Your task to perform on an android device: Open Google Maps and go to "Timeline" Image 0: 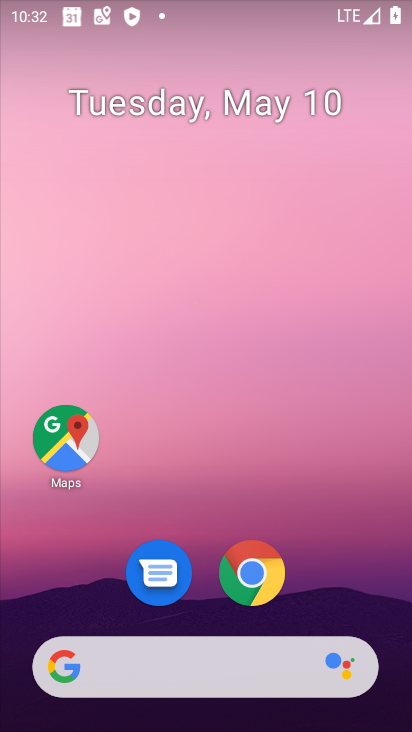
Step 0: click (63, 436)
Your task to perform on an android device: Open Google Maps and go to "Timeline" Image 1: 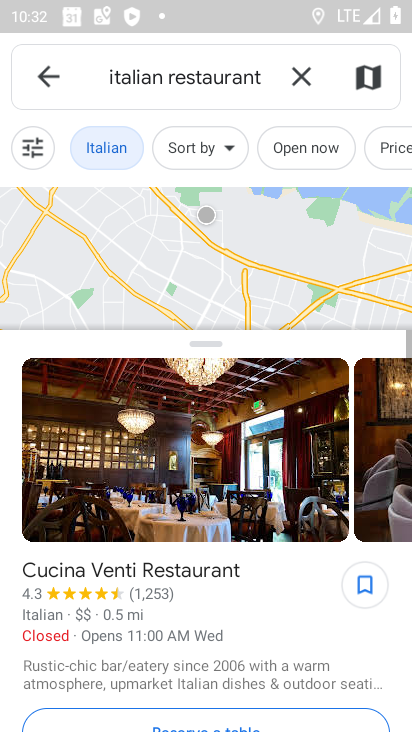
Step 1: click (303, 74)
Your task to perform on an android device: Open Google Maps and go to "Timeline" Image 2: 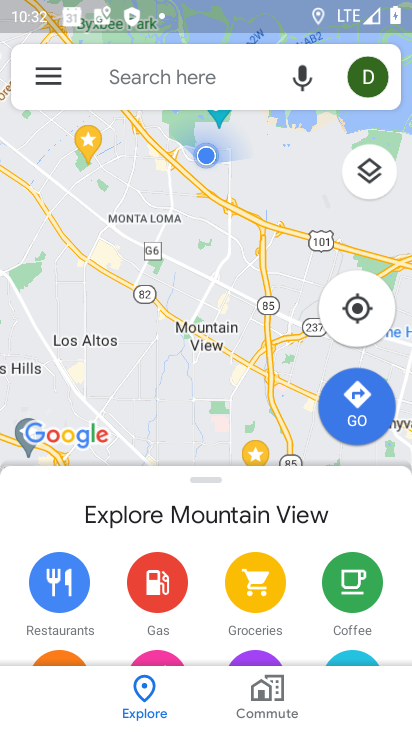
Step 2: click (55, 72)
Your task to perform on an android device: Open Google Maps and go to "Timeline" Image 3: 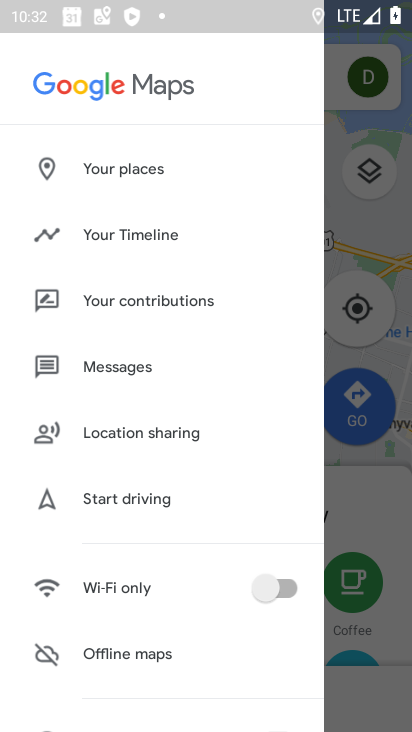
Step 3: click (133, 243)
Your task to perform on an android device: Open Google Maps and go to "Timeline" Image 4: 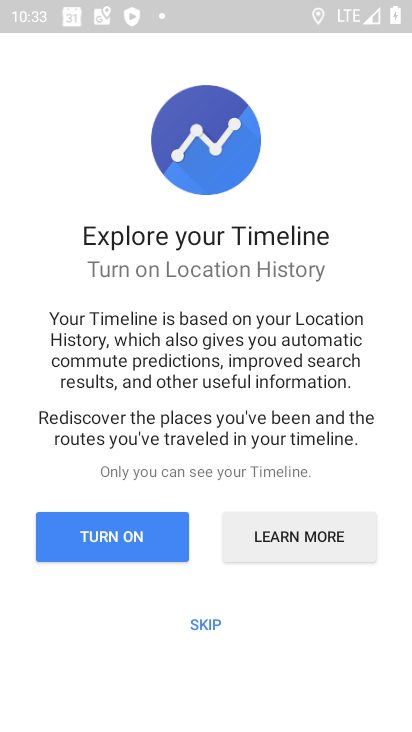
Step 4: click (116, 535)
Your task to perform on an android device: Open Google Maps and go to "Timeline" Image 5: 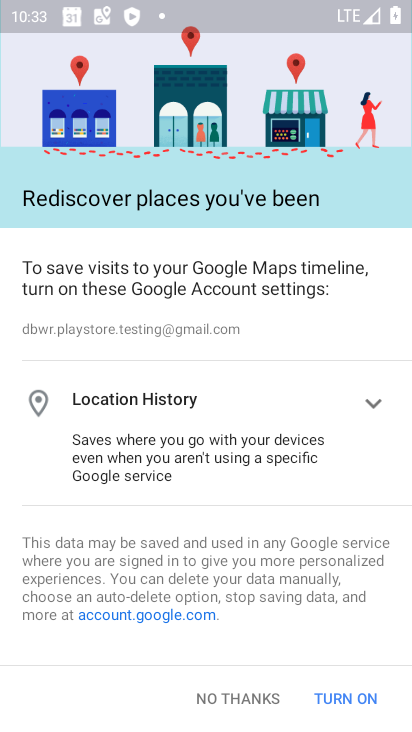
Step 5: click (317, 704)
Your task to perform on an android device: Open Google Maps and go to "Timeline" Image 6: 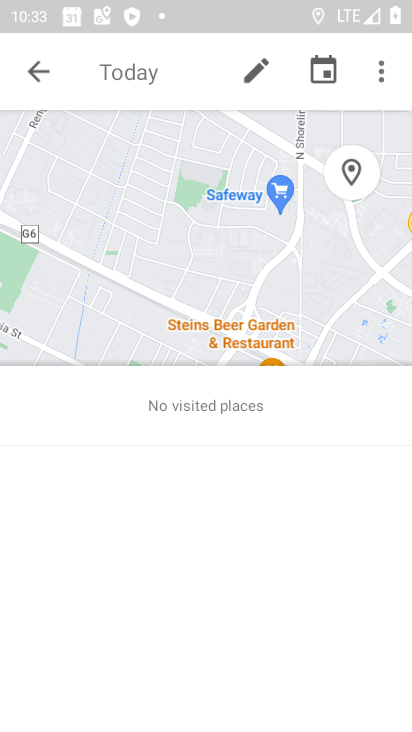
Step 6: task complete